Your task to perform on an android device: open sync settings in chrome Image 0: 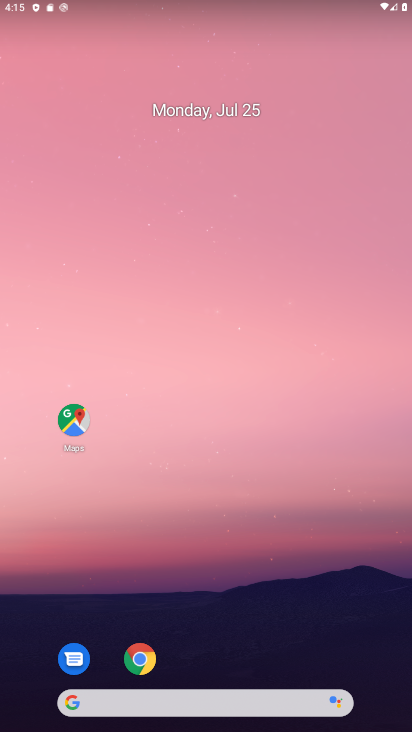
Step 0: click (133, 667)
Your task to perform on an android device: open sync settings in chrome Image 1: 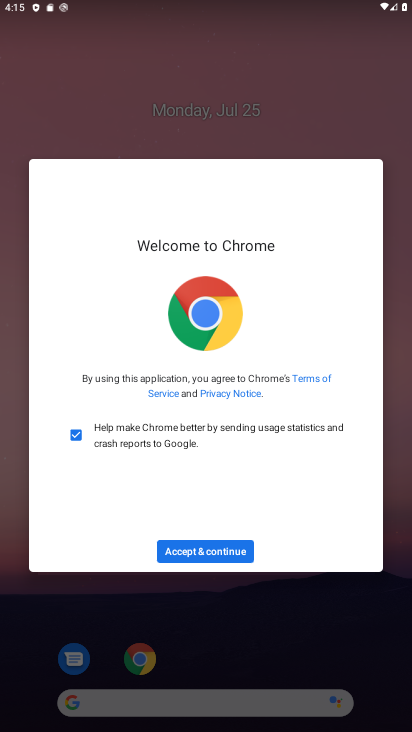
Step 1: click (192, 545)
Your task to perform on an android device: open sync settings in chrome Image 2: 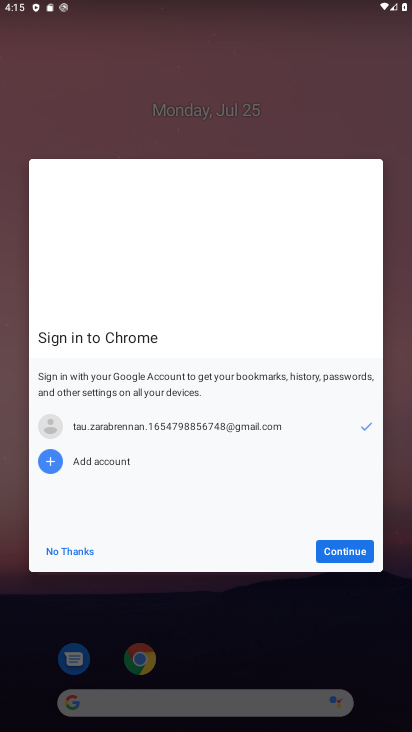
Step 2: click (333, 552)
Your task to perform on an android device: open sync settings in chrome Image 3: 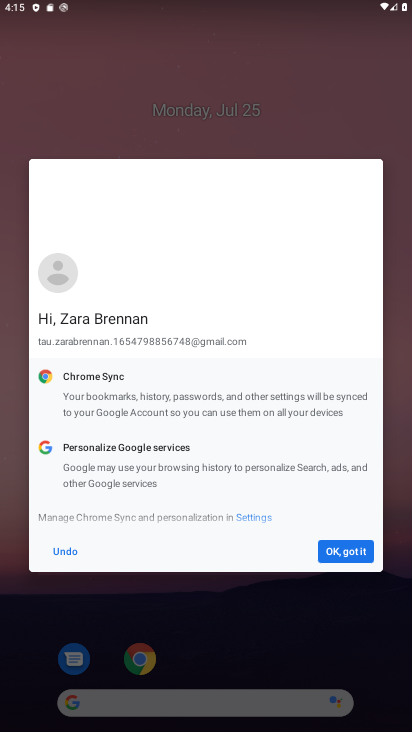
Step 3: click (333, 552)
Your task to perform on an android device: open sync settings in chrome Image 4: 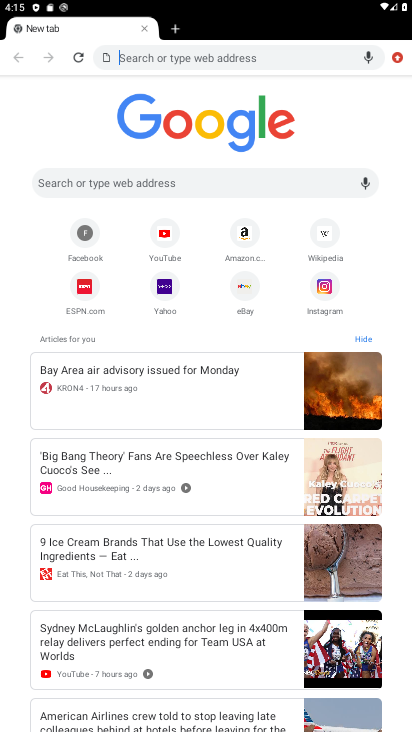
Step 4: click (399, 62)
Your task to perform on an android device: open sync settings in chrome Image 5: 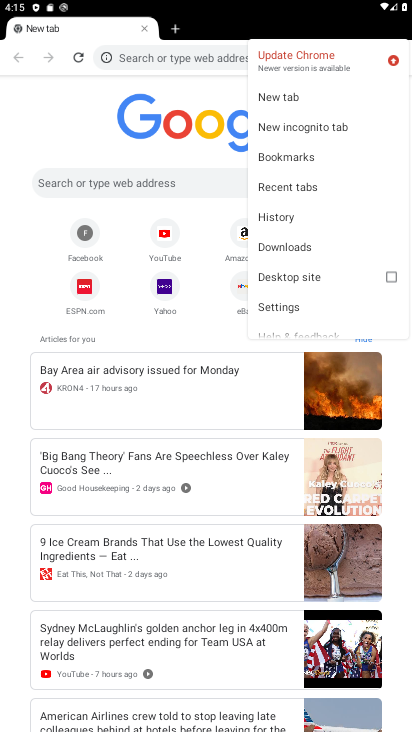
Step 5: click (268, 308)
Your task to perform on an android device: open sync settings in chrome Image 6: 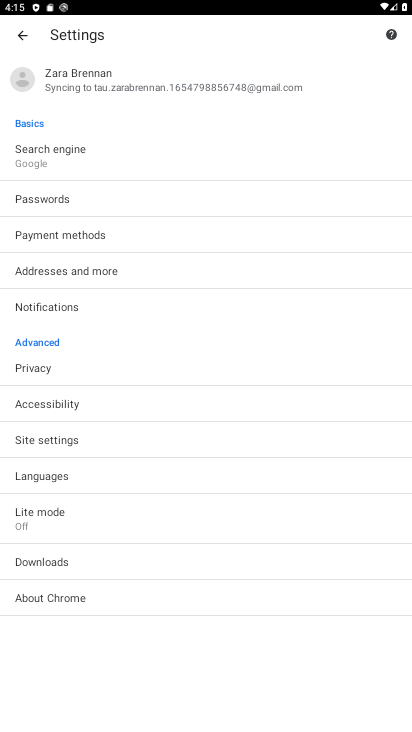
Step 6: click (152, 88)
Your task to perform on an android device: open sync settings in chrome Image 7: 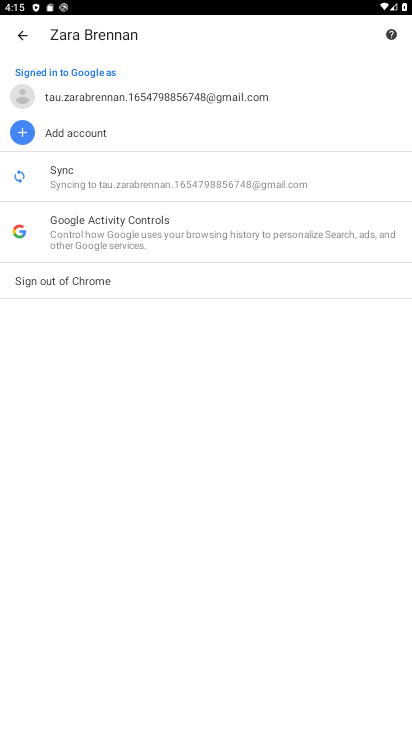
Step 7: click (70, 175)
Your task to perform on an android device: open sync settings in chrome Image 8: 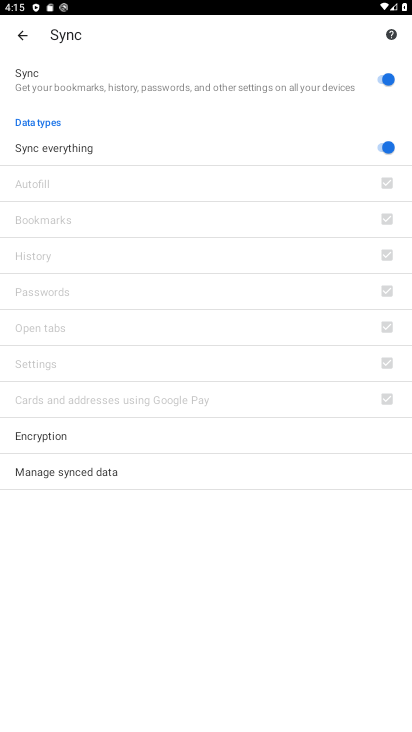
Step 8: task complete